Your task to perform on an android device: Go to notification settings Image 0: 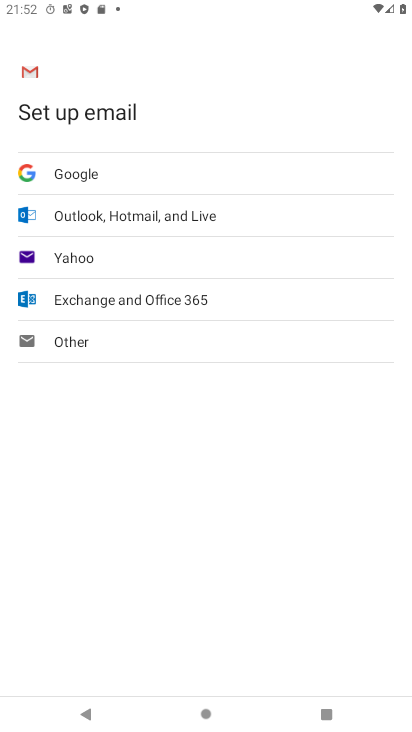
Step 0: press home button
Your task to perform on an android device: Go to notification settings Image 1: 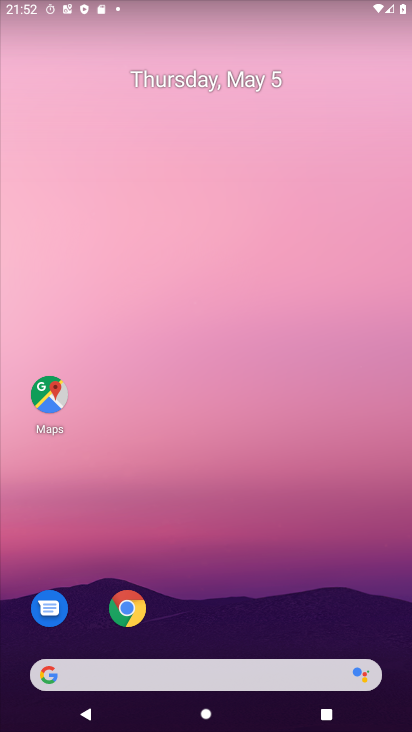
Step 1: drag from (290, 637) to (263, 0)
Your task to perform on an android device: Go to notification settings Image 2: 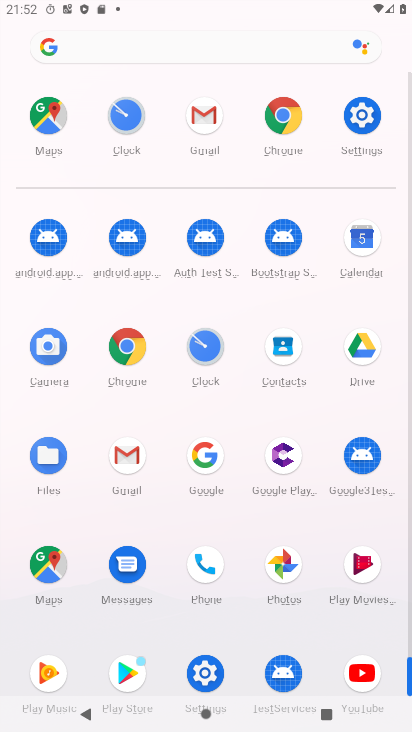
Step 2: click (203, 670)
Your task to perform on an android device: Go to notification settings Image 3: 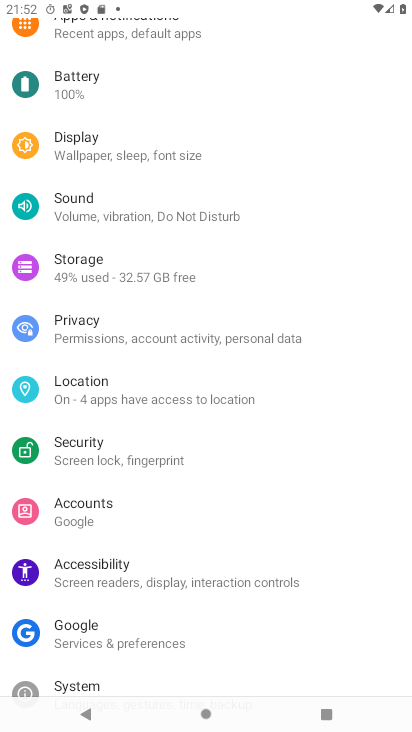
Step 3: drag from (227, 188) to (305, 680)
Your task to perform on an android device: Go to notification settings Image 4: 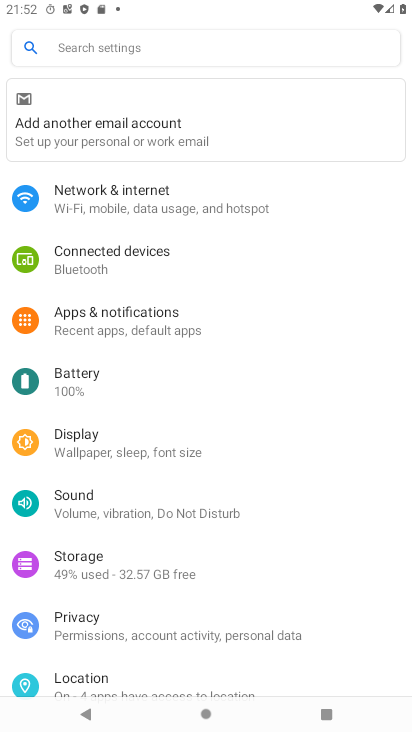
Step 4: click (157, 325)
Your task to perform on an android device: Go to notification settings Image 5: 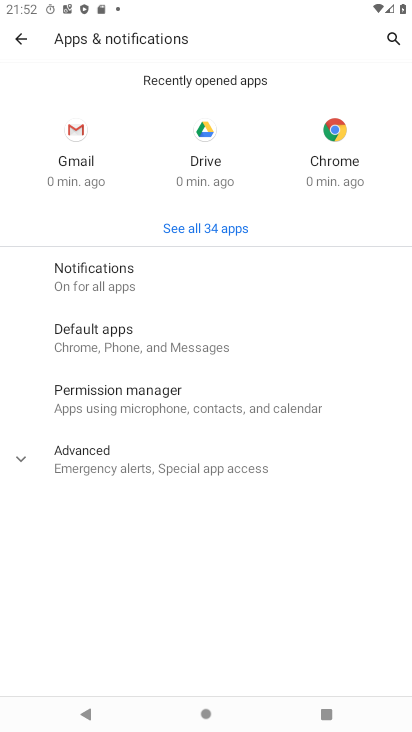
Step 5: click (142, 277)
Your task to perform on an android device: Go to notification settings Image 6: 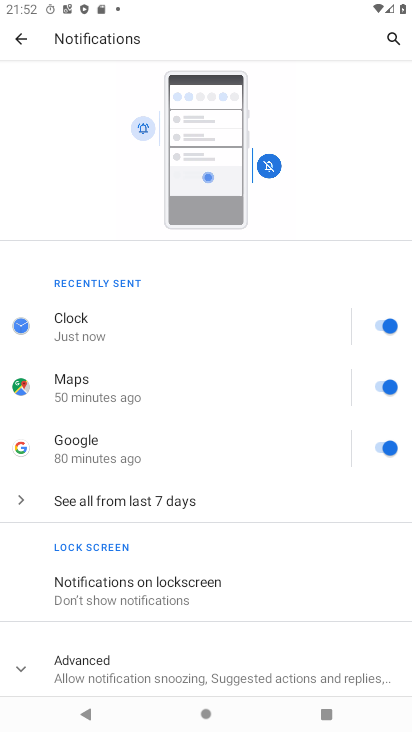
Step 6: click (144, 127)
Your task to perform on an android device: Go to notification settings Image 7: 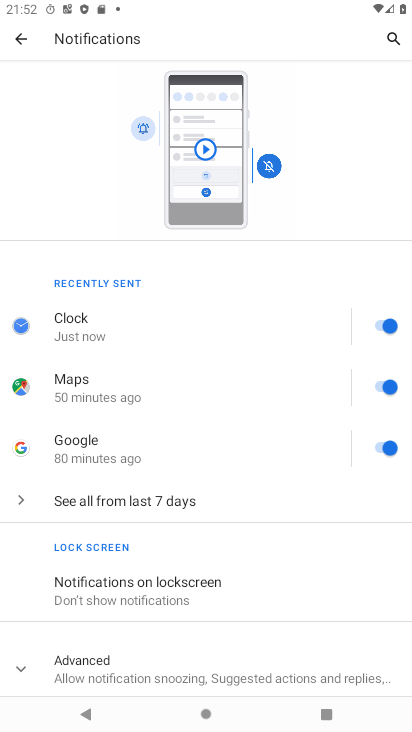
Step 7: click (144, 127)
Your task to perform on an android device: Go to notification settings Image 8: 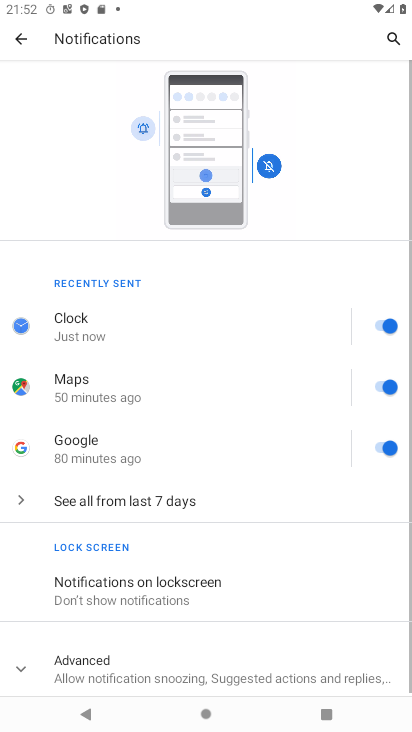
Step 8: click (144, 127)
Your task to perform on an android device: Go to notification settings Image 9: 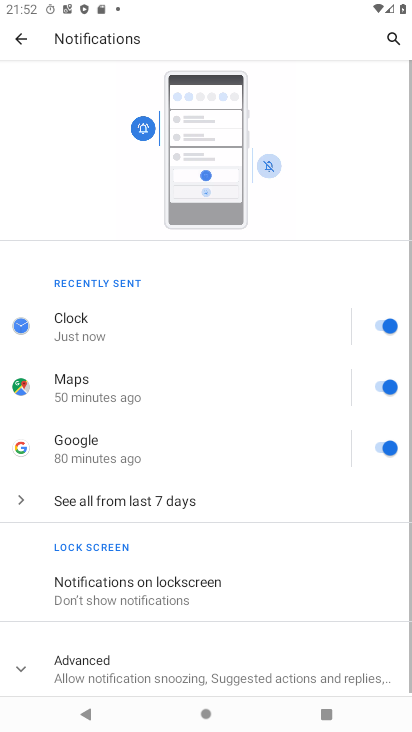
Step 9: click (144, 127)
Your task to perform on an android device: Go to notification settings Image 10: 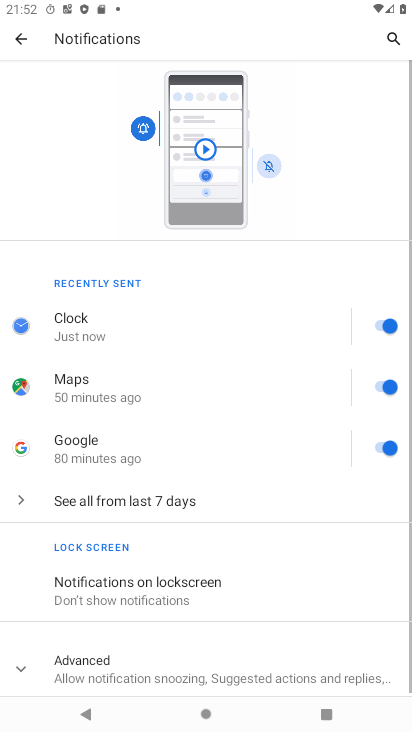
Step 10: click (144, 127)
Your task to perform on an android device: Go to notification settings Image 11: 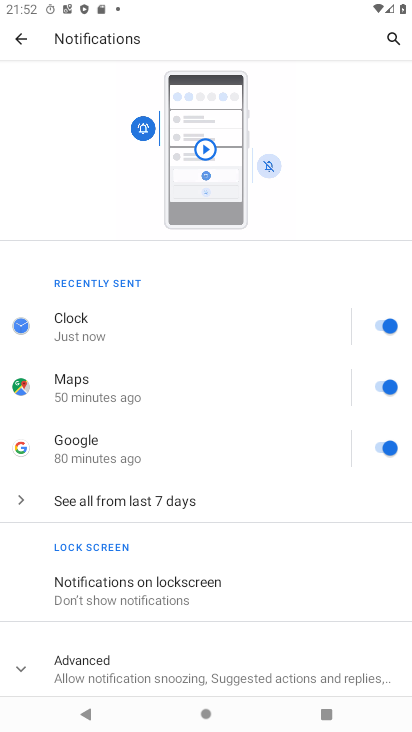
Step 11: task complete